Your task to perform on an android device: Find coffee shops on Maps Image 0: 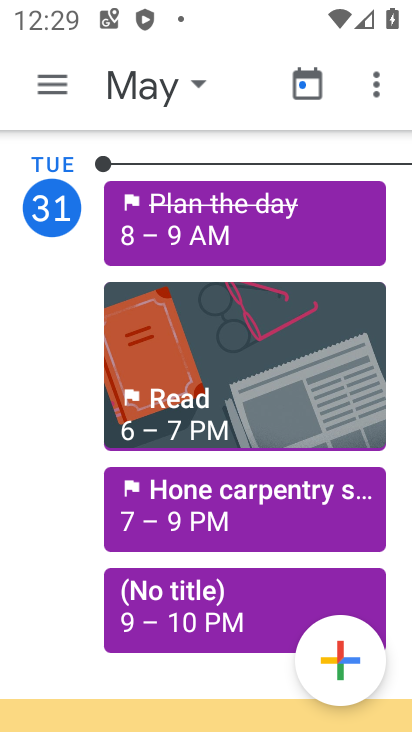
Step 0: press home button
Your task to perform on an android device: Find coffee shops on Maps Image 1: 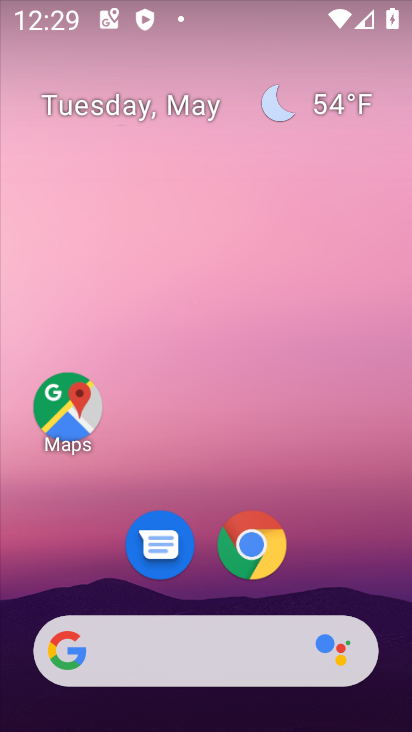
Step 1: click (93, 420)
Your task to perform on an android device: Find coffee shops on Maps Image 2: 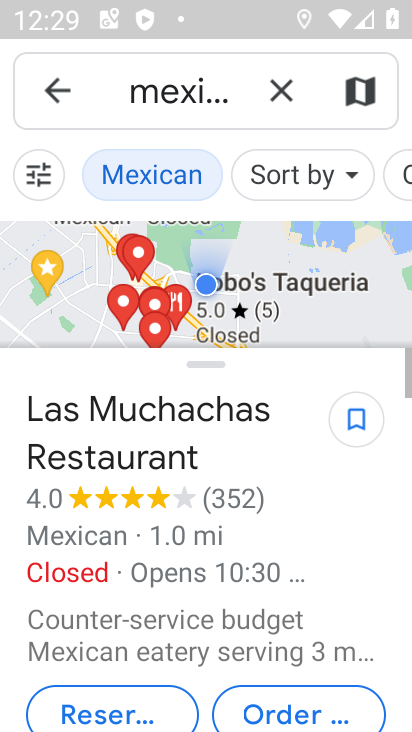
Step 2: click (279, 75)
Your task to perform on an android device: Find coffee shops on Maps Image 3: 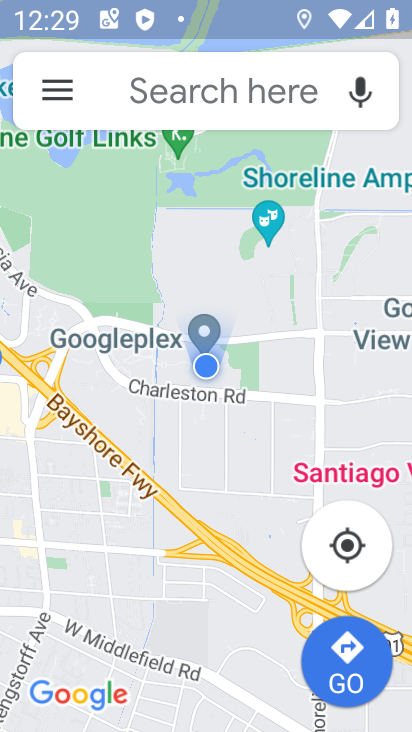
Step 3: click (214, 81)
Your task to perform on an android device: Find coffee shops on Maps Image 4: 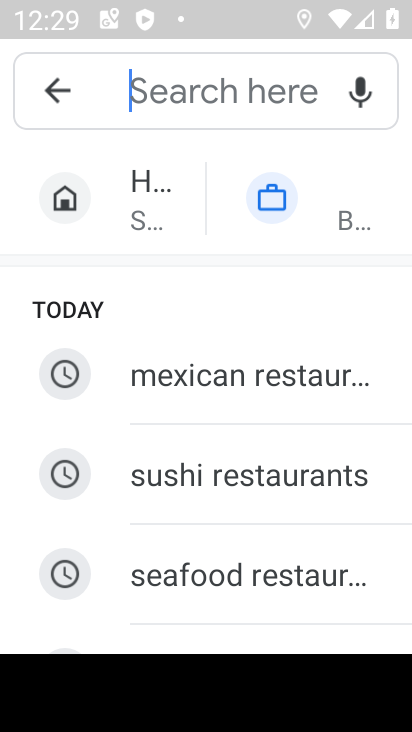
Step 4: drag from (208, 550) to (188, 347)
Your task to perform on an android device: Find coffee shops on Maps Image 5: 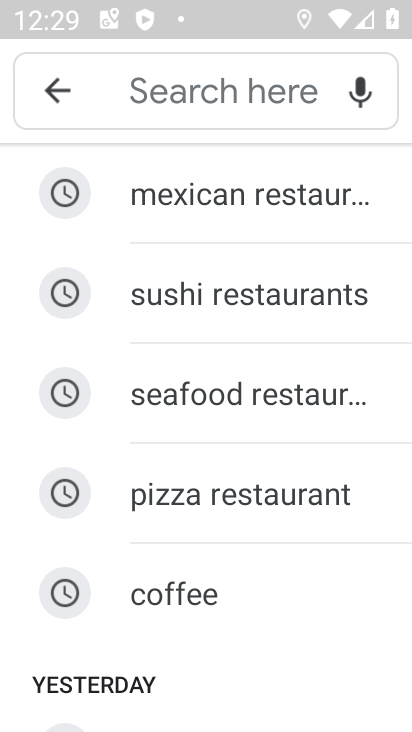
Step 5: click (201, 576)
Your task to perform on an android device: Find coffee shops on Maps Image 6: 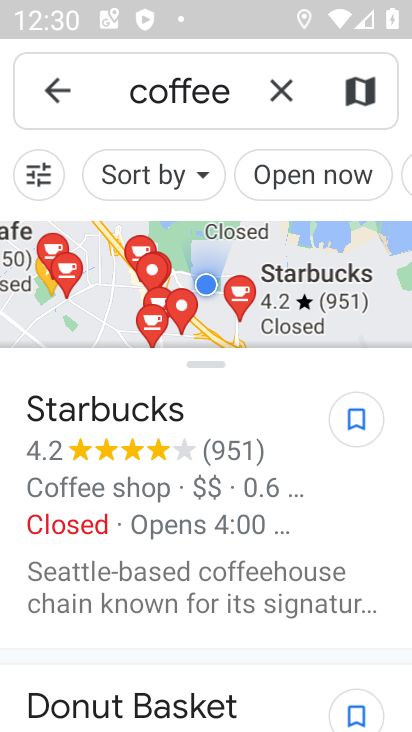
Step 6: task complete